Your task to perform on an android device: Show me recent news Image 0: 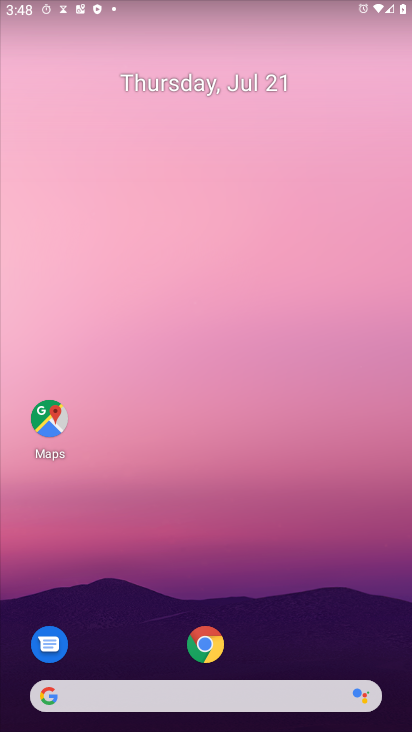
Step 0: press home button
Your task to perform on an android device: Show me recent news Image 1: 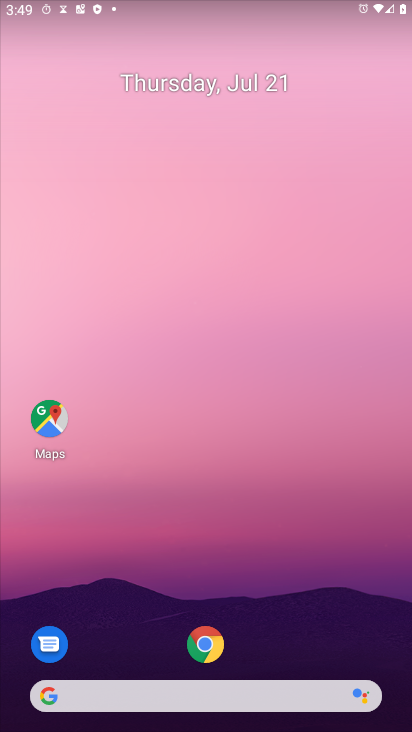
Step 1: click (51, 703)
Your task to perform on an android device: Show me recent news Image 2: 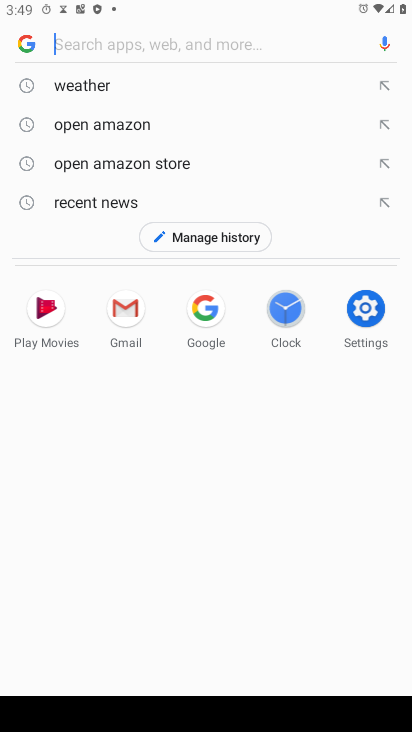
Step 2: click (97, 197)
Your task to perform on an android device: Show me recent news Image 3: 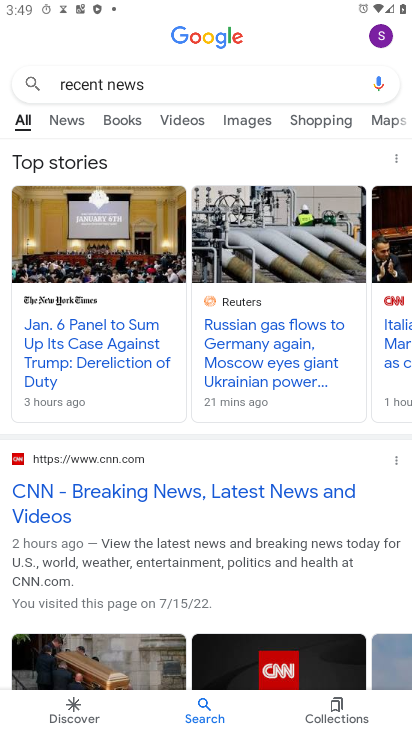
Step 3: task complete